Your task to perform on an android device: change text size in settings app Image 0: 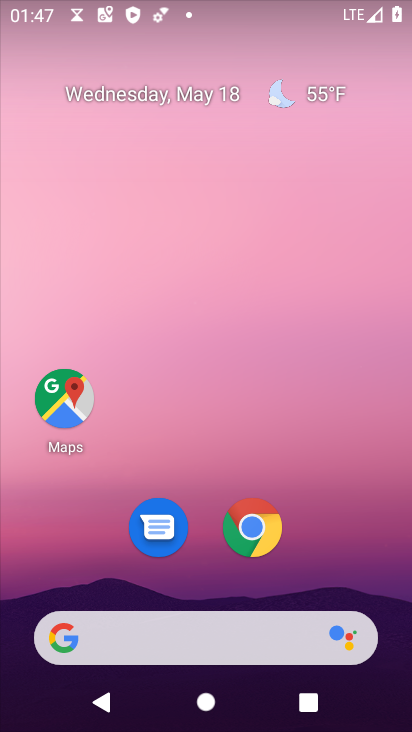
Step 0: drag from (338, 553) to (278, 57)
Your task to perform on an android device: change text size in settings app Image 1: 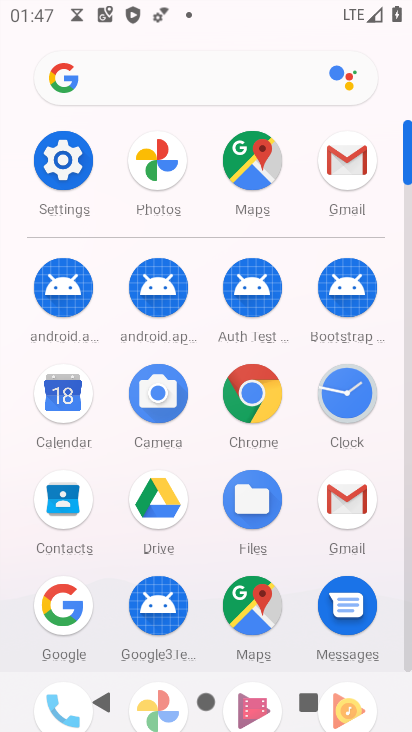
Step 1: click (59, 164)
Your task to perform on an android device: change text size in settings app Image 2: 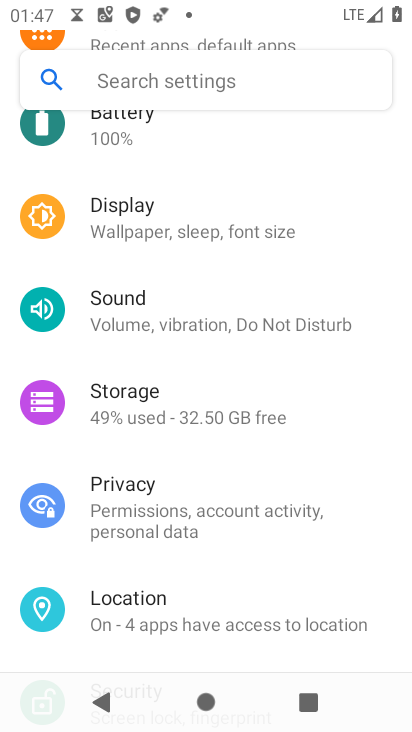
Step 2: click (174, 242)
Your task to perform on an android device: change text size in settings app Image 3: 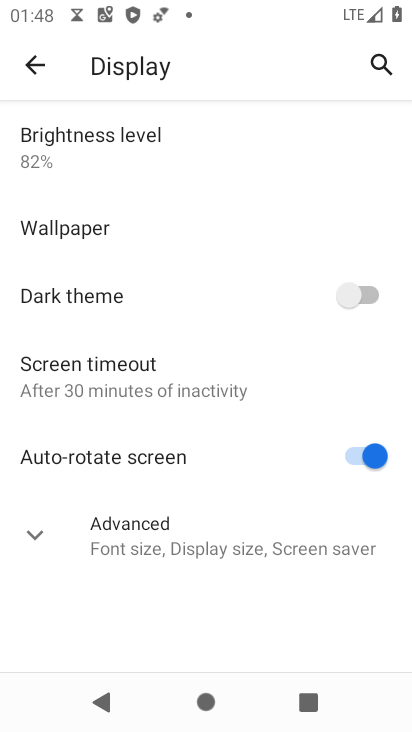
Step 3: click (138, 523)
Your task to perform on an android device: change text size in settings app Image 4: 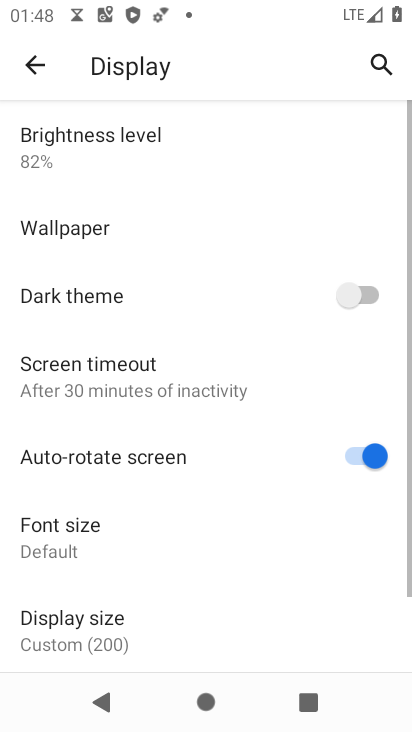
Step 4: click (139, 522)
Your task to perform on an android device: change text size in settings app Image 5: 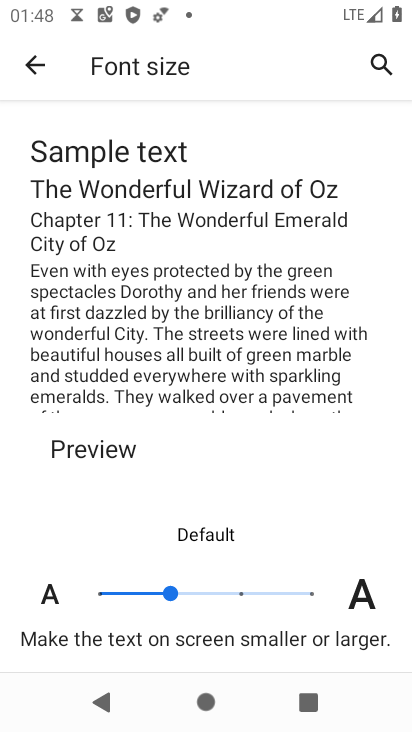
Step 5: click (101, 590)
Your task to perform on an android device: change text size in settings app Image 6: 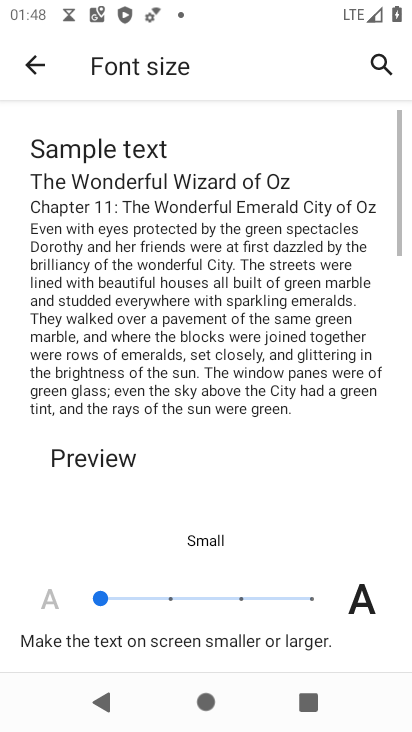
Step 6: task complete